Your task to perform on an android device: Open Google Image 0: 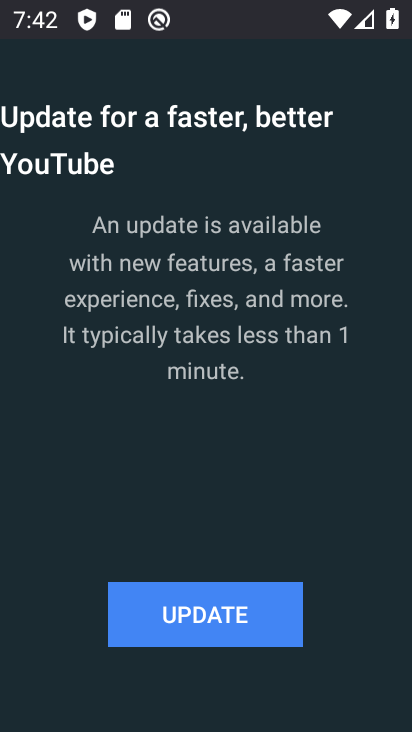
Step 0: press home button
Your task to perform on an android device: Open Google Image 1: 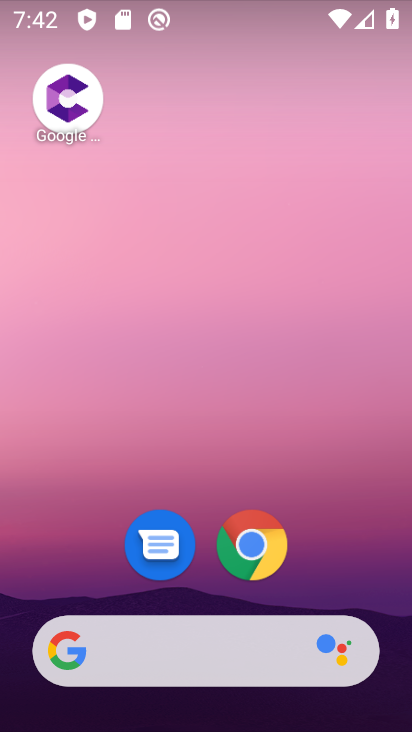
Step 1: drag from (335, 545) to (343, 94)
Your task to perform on an android device: Open Google Image 2: 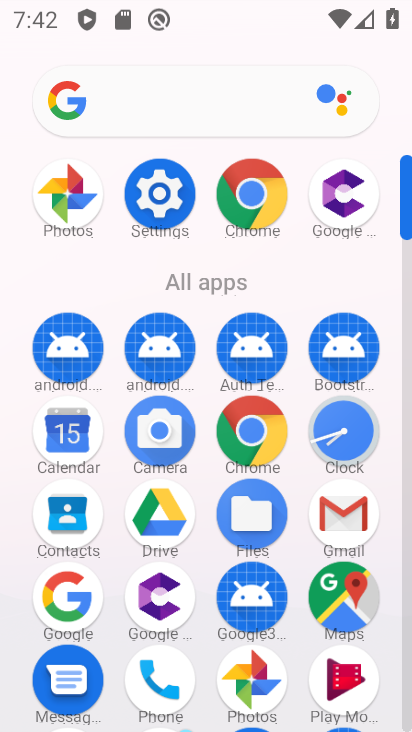
Step 2: click (72, 603)
Your task to perform on an android device: Open Google Image 3: 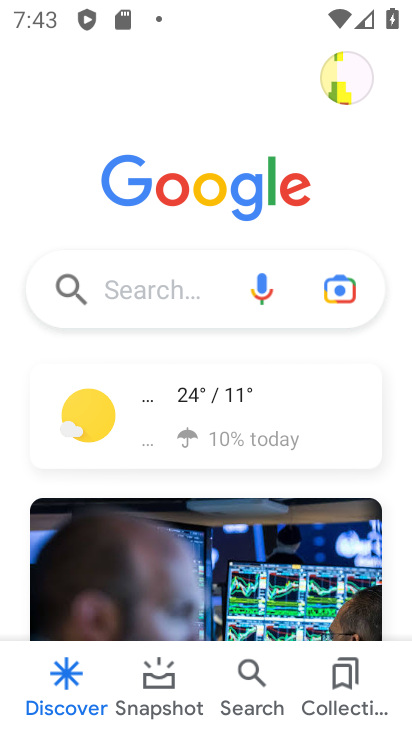
Step 3: task complete